Your task to perform on an android device: set the timer Image 0: 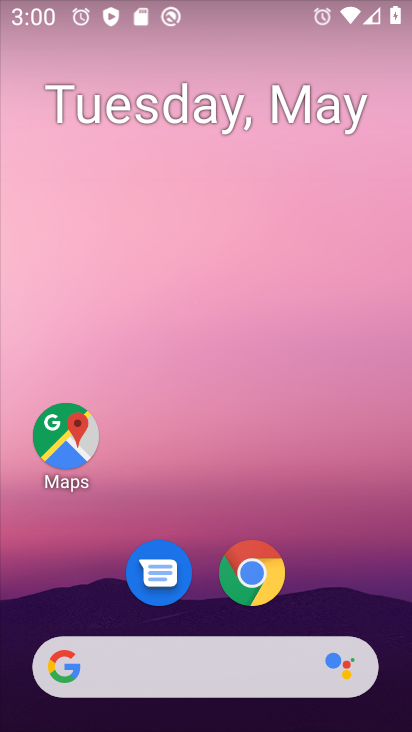
Step 0: drag from (332, 569) to (264, 38)
Your task to perform on an android device: set the timer Image 1: 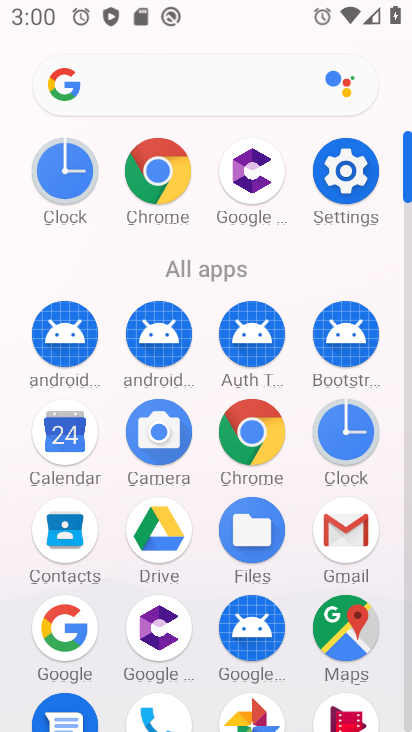
Step 1: drag from (8, 592) to (16, 236)
Your task to perform on an android device: set the timer Image 2: 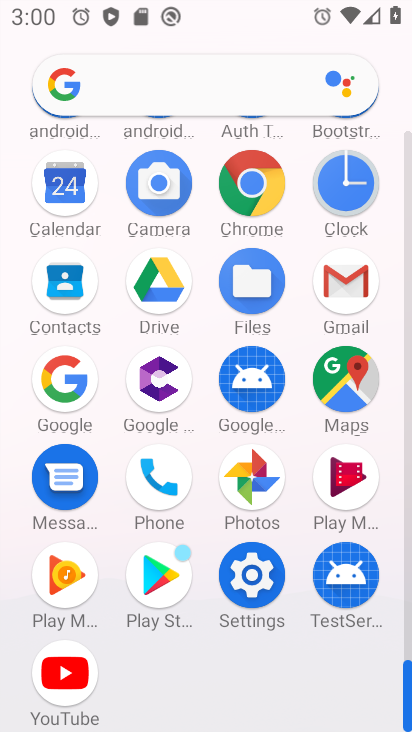
Step 2: click (345, 175)
Your task to perform on an android device: set the timer Image 3: 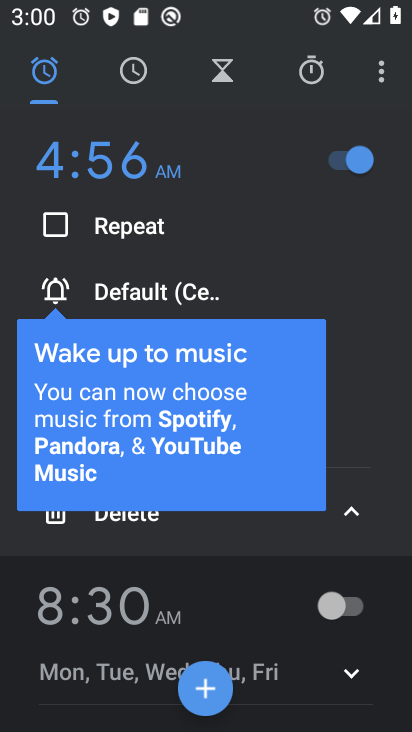
Step 3: click (229, 70)
Your task to perform on an android device: set the timer Image 4: 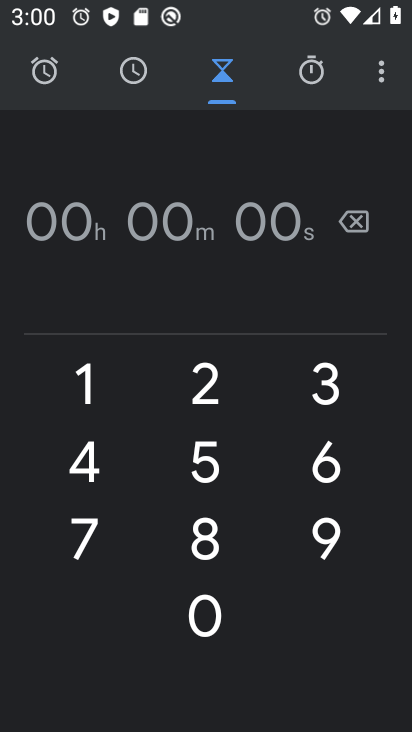
Step 4: click (198, 368)
Your task to perform on an android device: set the timer Image 5: 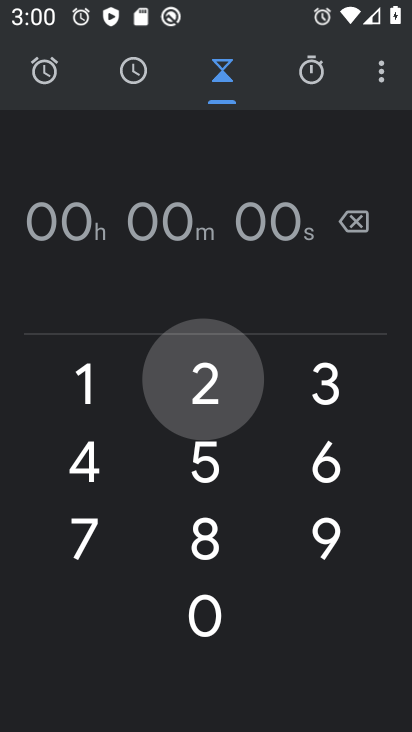
Step 5: click (205, 450)
Your task to perform on an android device: set the timer Image 6: 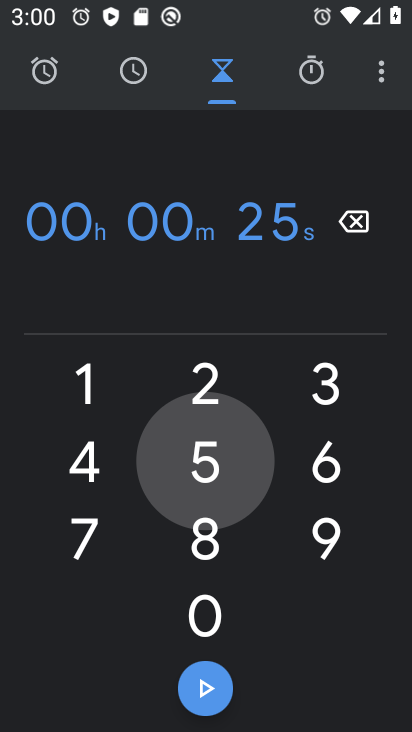
Step 6: click (205, 537)
Your task to perform on an android device: set the timer Image 7: 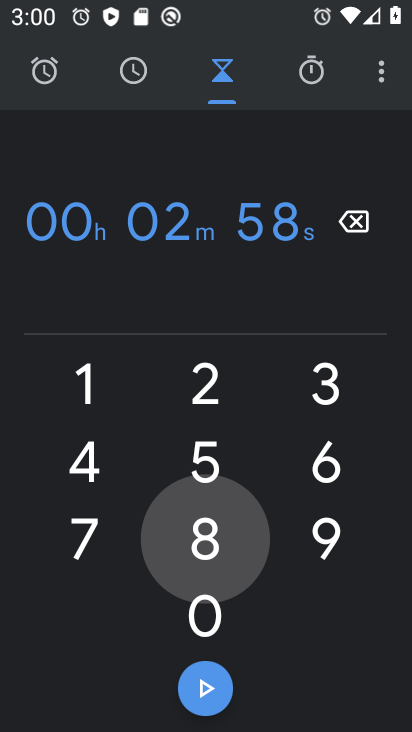
Step 7: click (82, 543)
Your task to perform on an android device: set the timer Image 8: 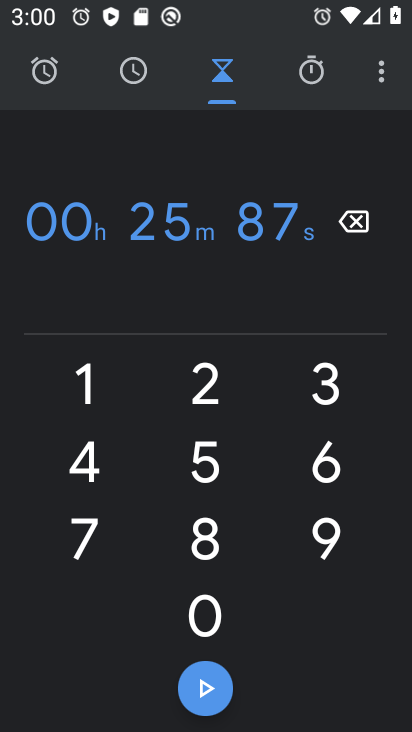
Step 8: click (204, 696)
Your task to perform on an android device: set the timer Image 9: 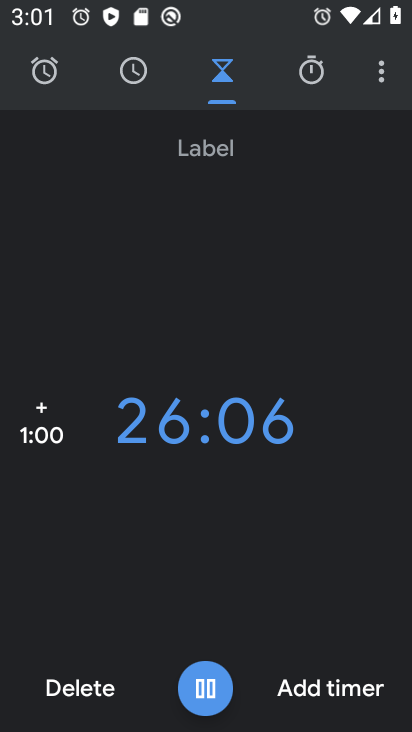
Step 9: task complete